Your task to perform on an android device: open app "Reddit" Image 0: 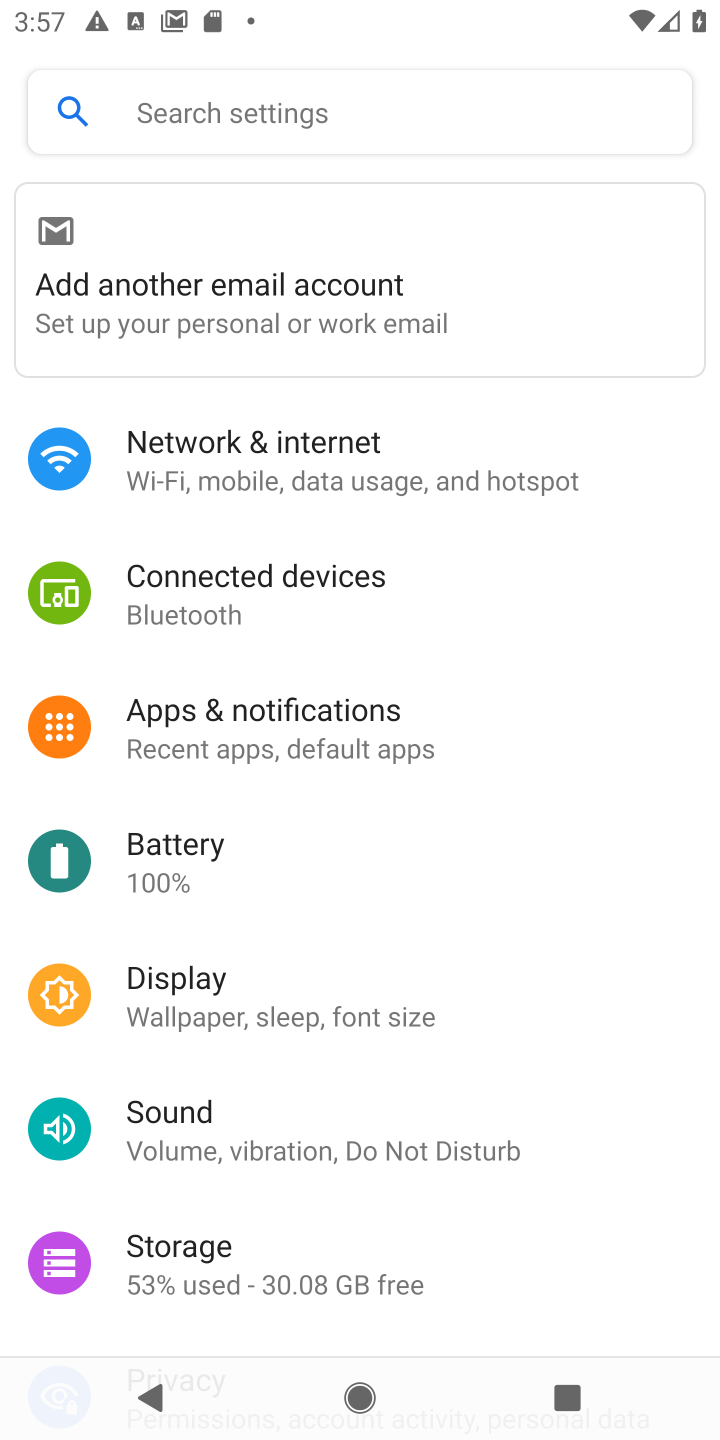
Step 0: press home button
Your task to perform on an android device: open app "Reddit" Image 1: 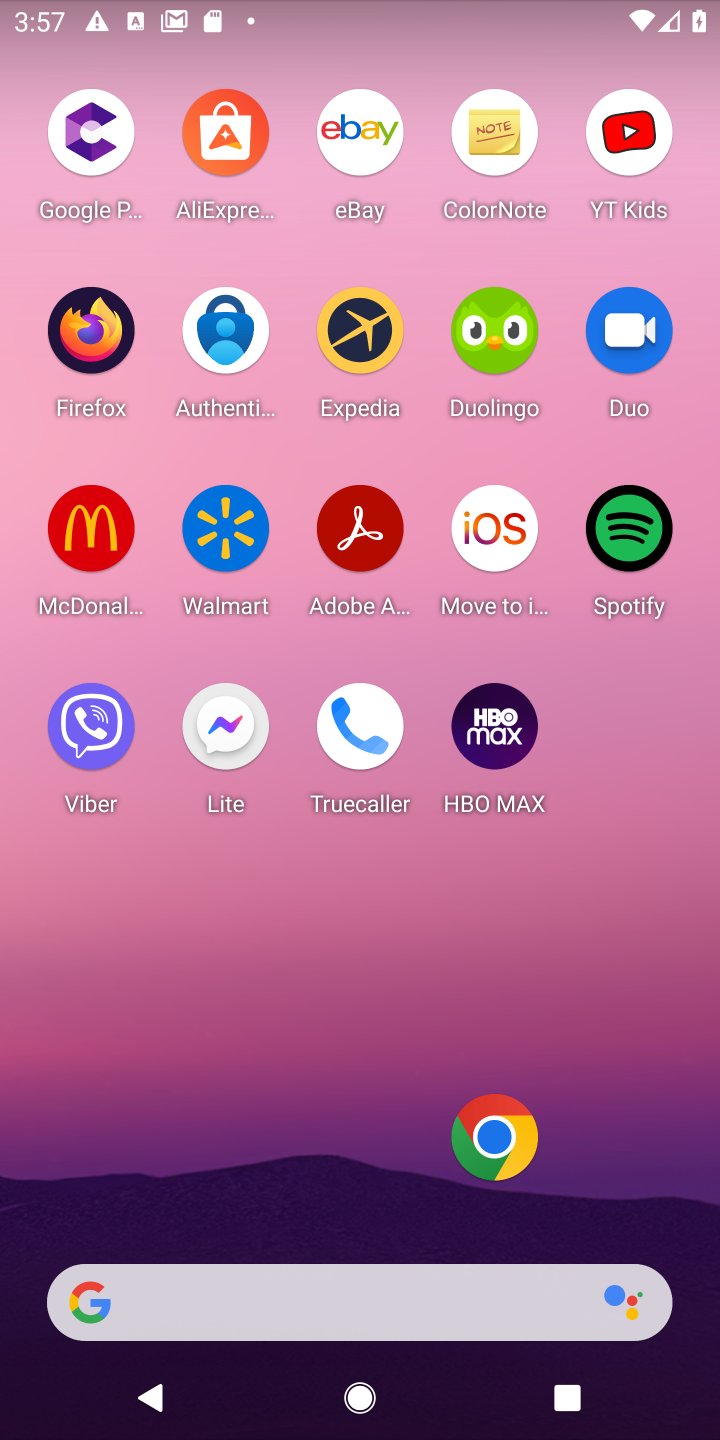
Step 1: drag from (288, 1164) to (301, 11)
Your task to perform on an android device: open app "Reddit" Image 2: 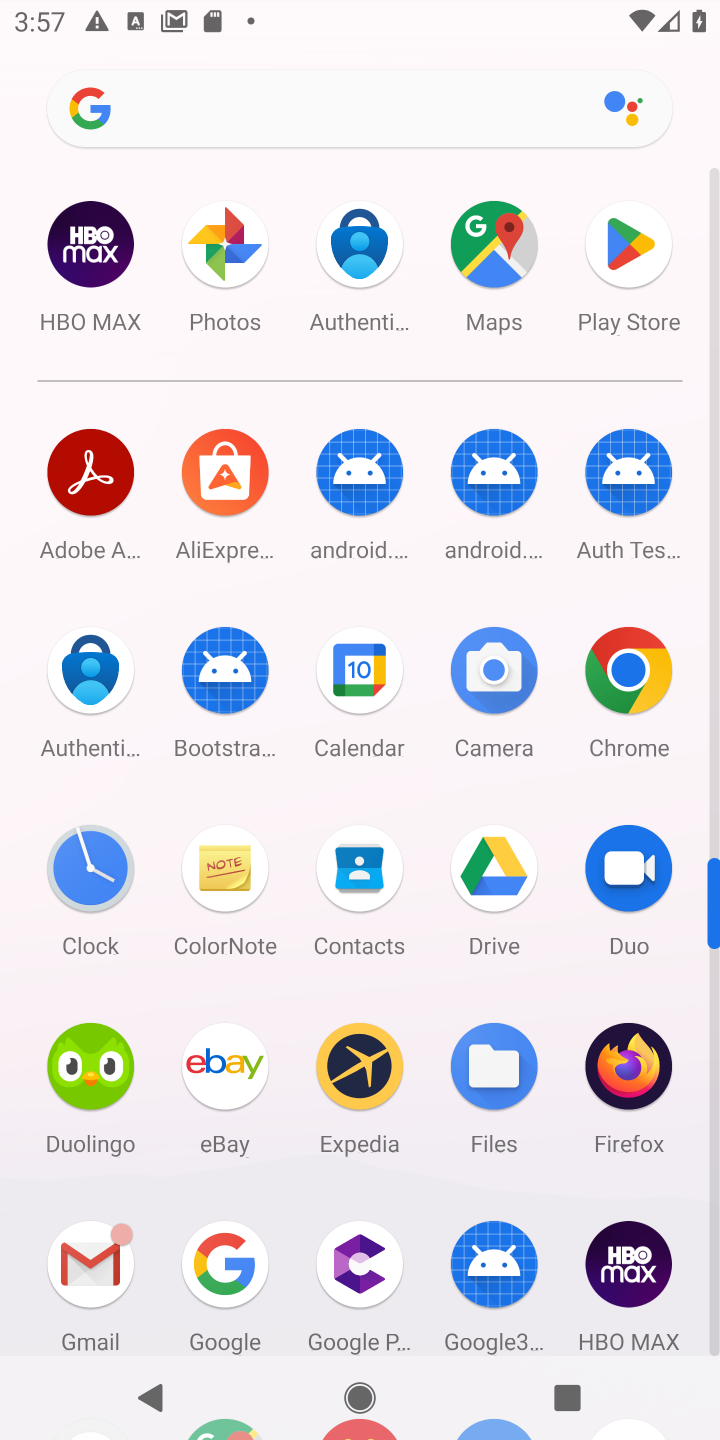
Step 2: click (643, 314)
Your task to perform on an android device: open app "Reddit" Image 3: 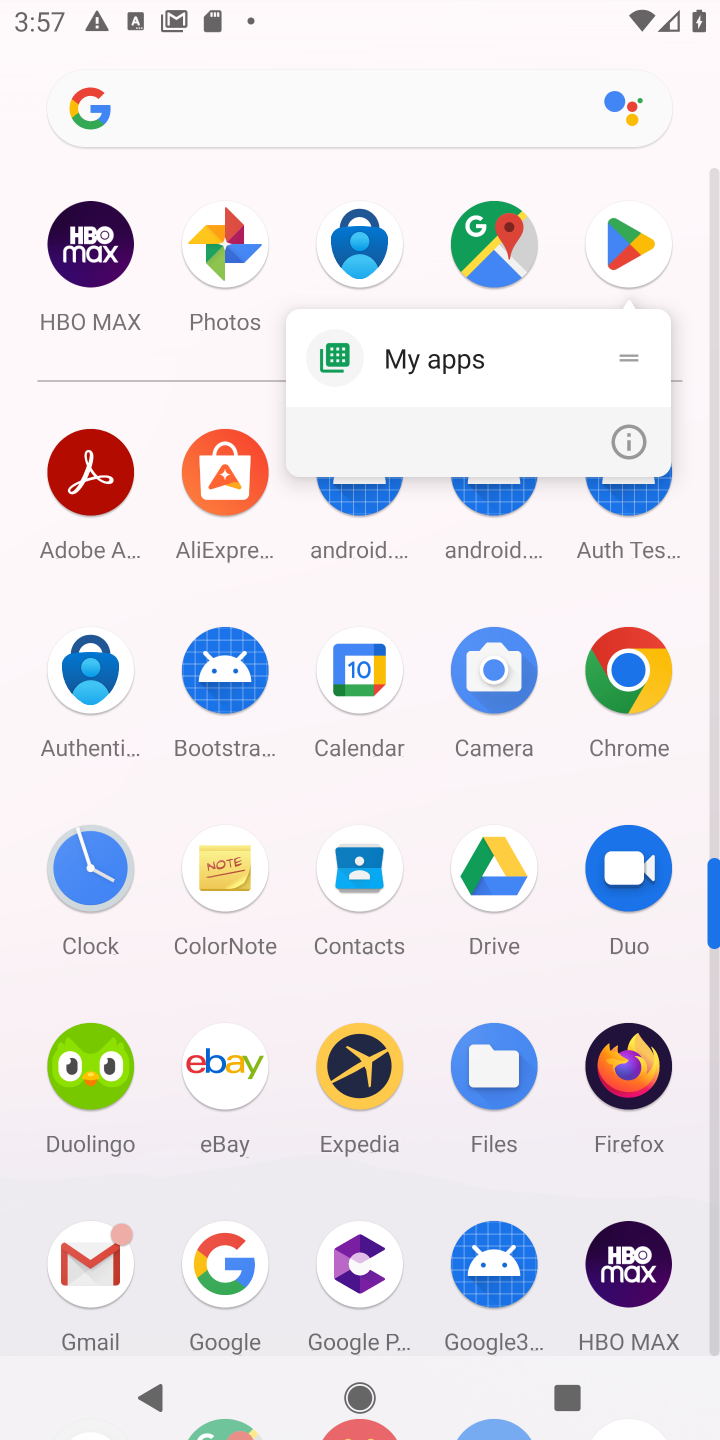
Step 3: click (638, 228)
Your task to perform on an android device: open app "Reddit" Image 4: 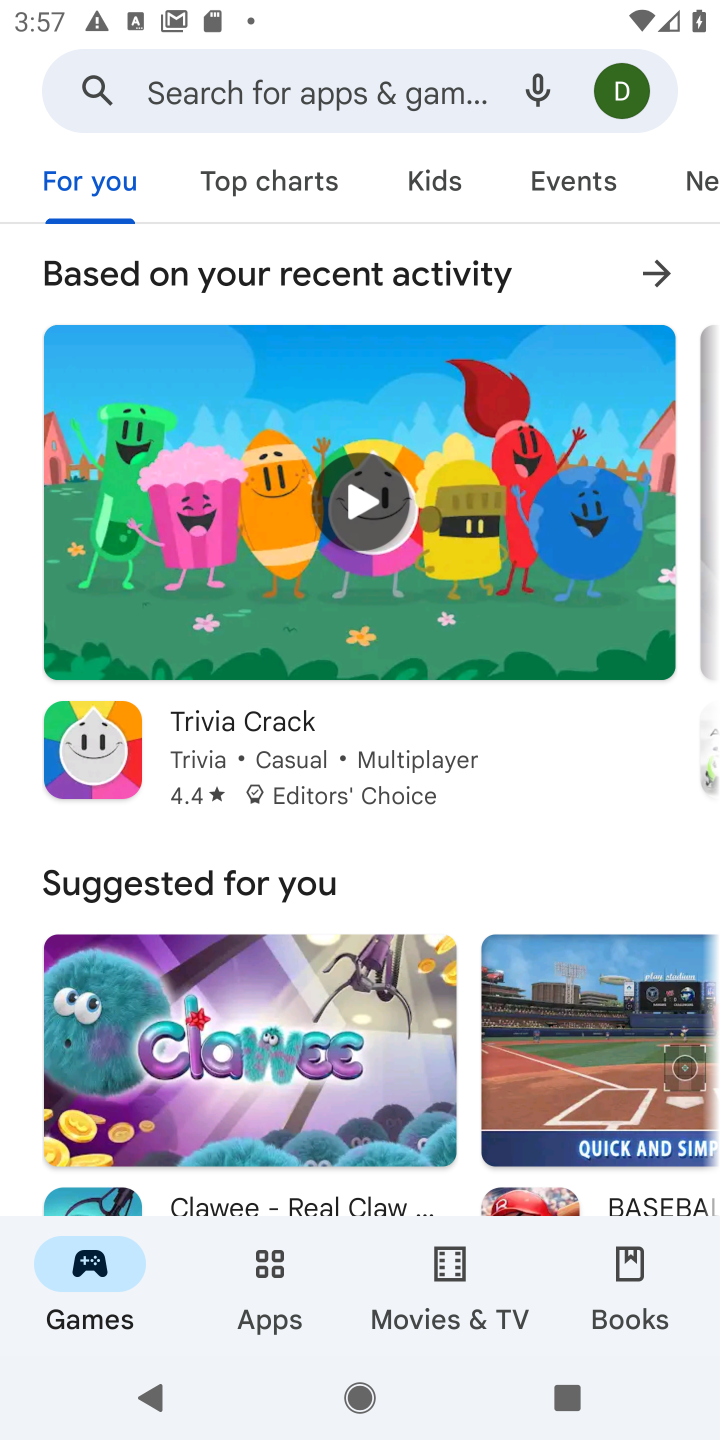
Step 4: click (266, 97)
Your task to perform on an android device: open app "Reddit" Image 5: 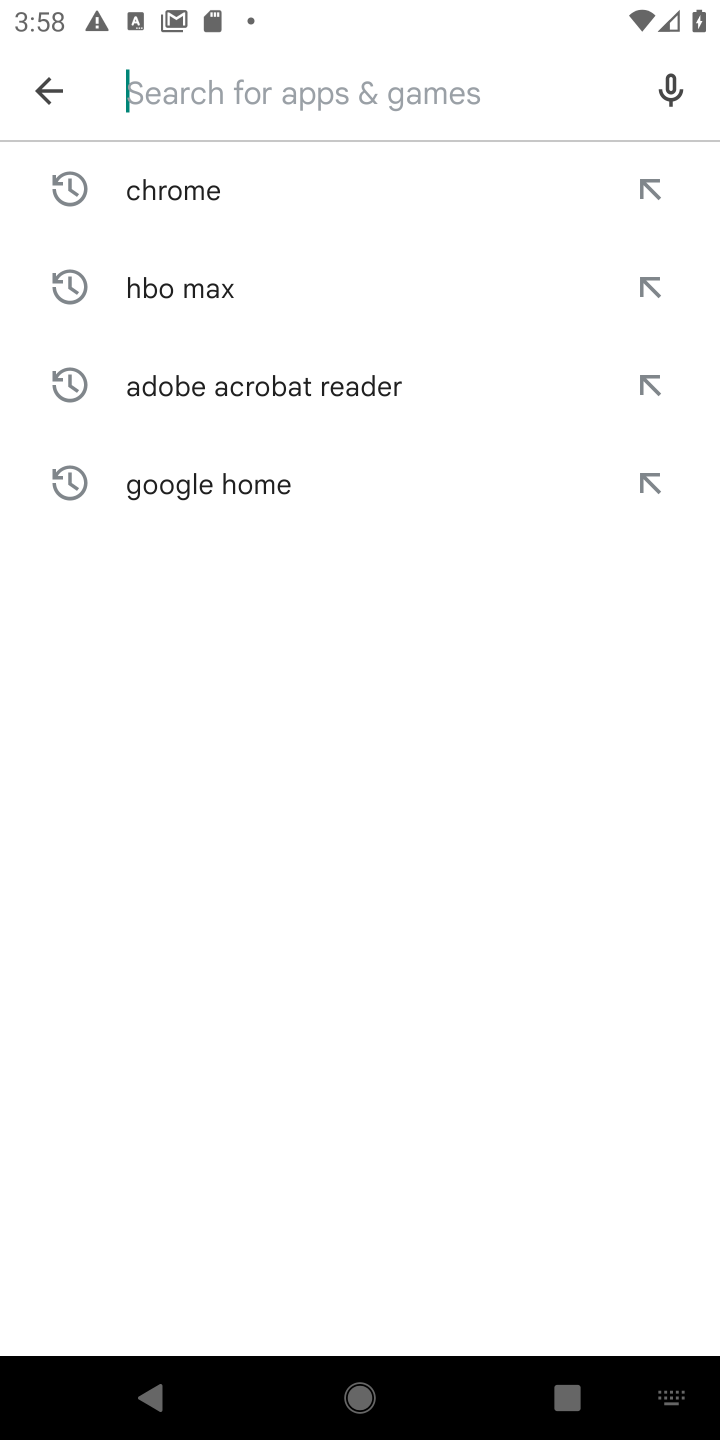
Step 5: type "Reddit"
Your task to perform on an android device: open app "Reddit" Image 6: 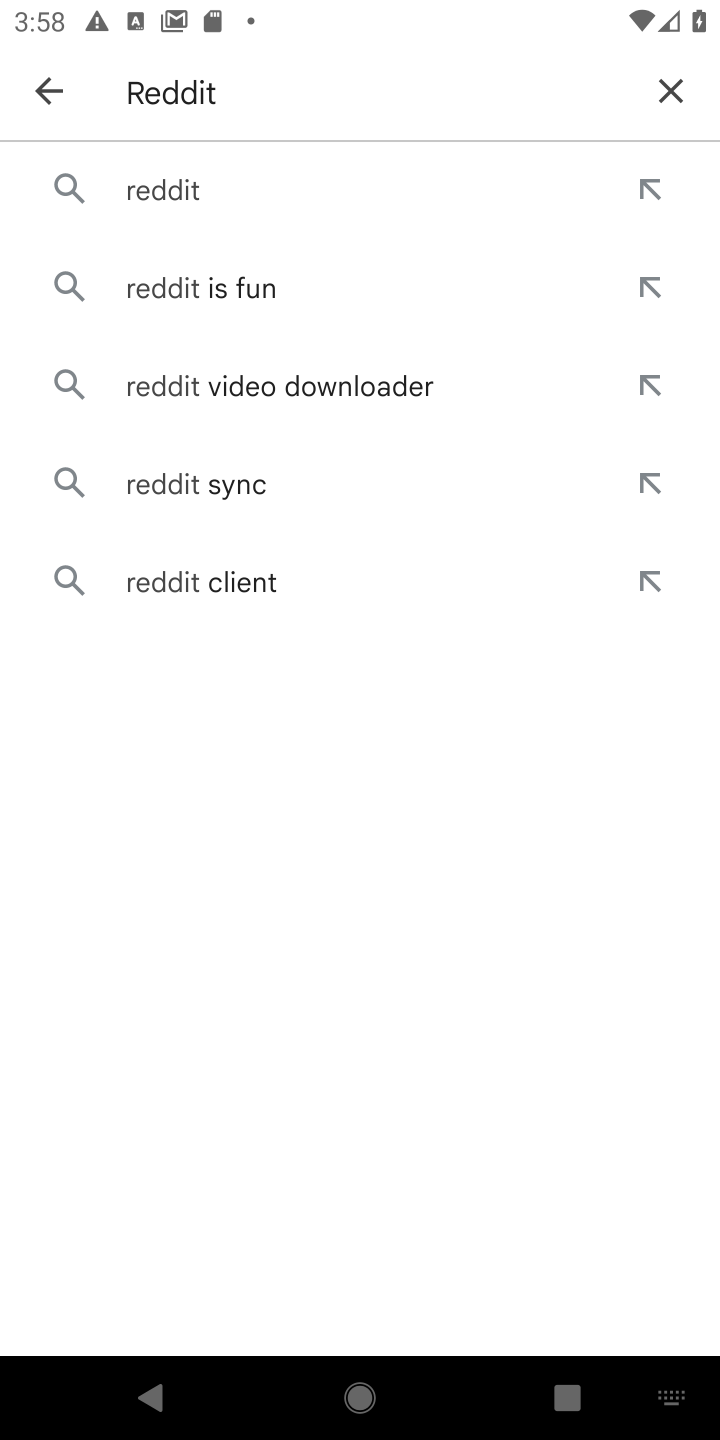
Step 6: click (218, 203)
Your task to perform on an android device: open app "Reddit" Image 7: 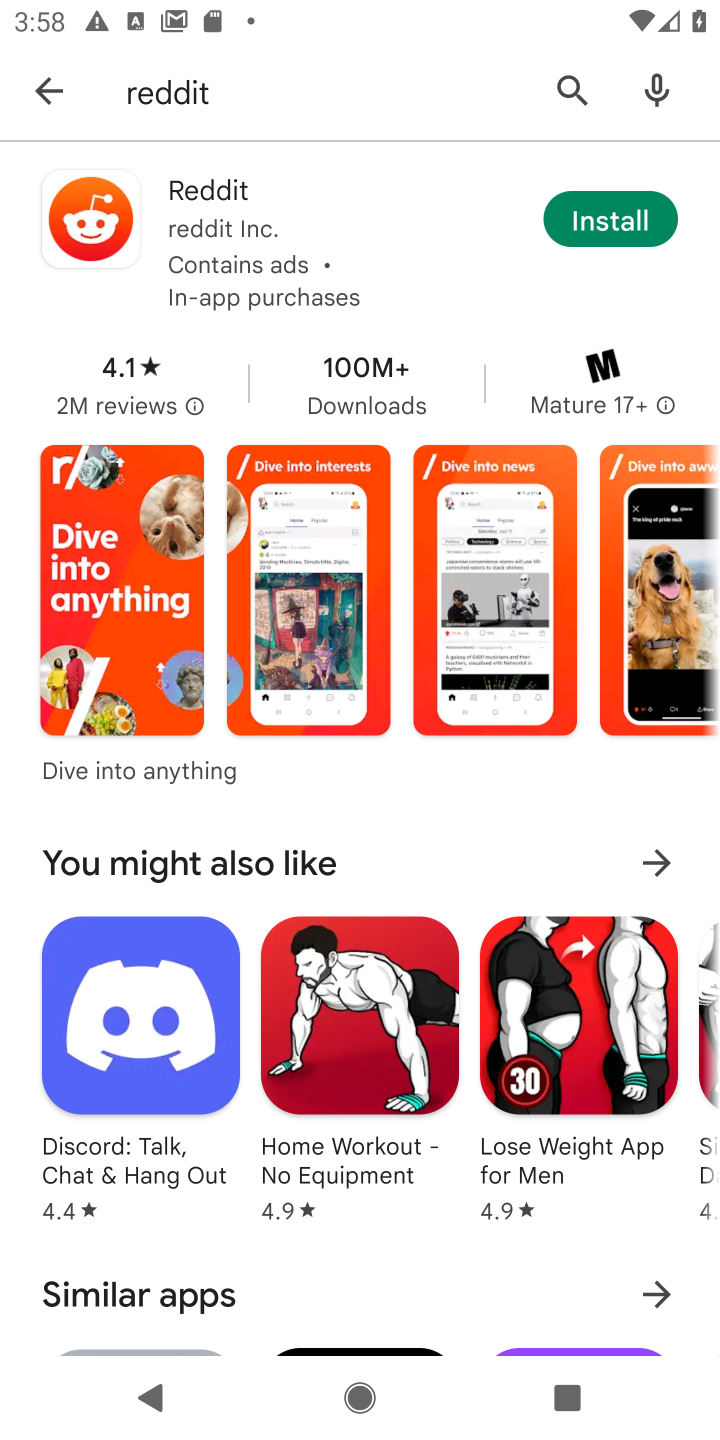
Step 7: task complete